Your task to perform on an android device: add a contact Image 0: 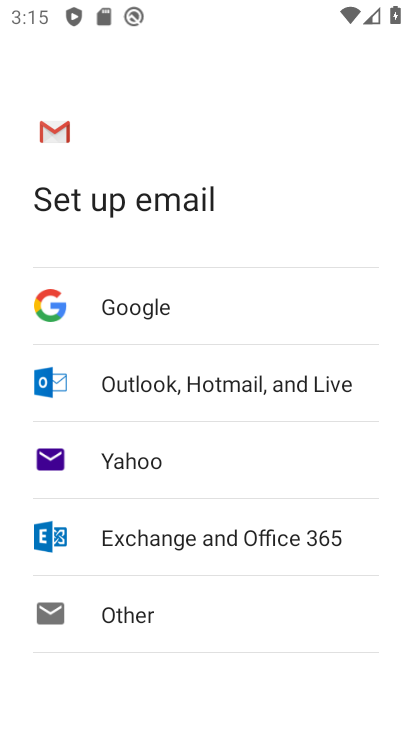
Step 0: press home button
Your task to perform on an android device: add a contact Image 1: 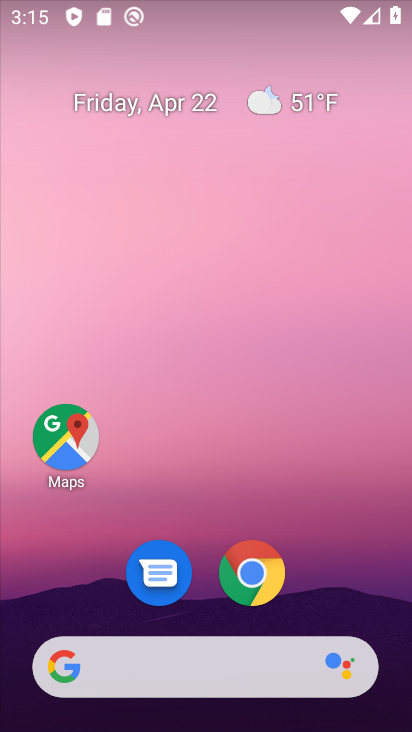
Step 1: drag from (329, 619) to (308, 172)
Your task to perform on an android device: add a contact Image 2: 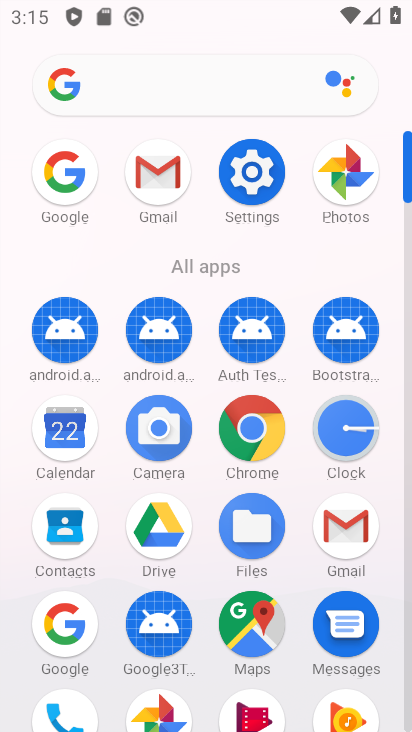
Step 2: click (257, 250)
Your task to perform on an android device: add a contact Image 3: 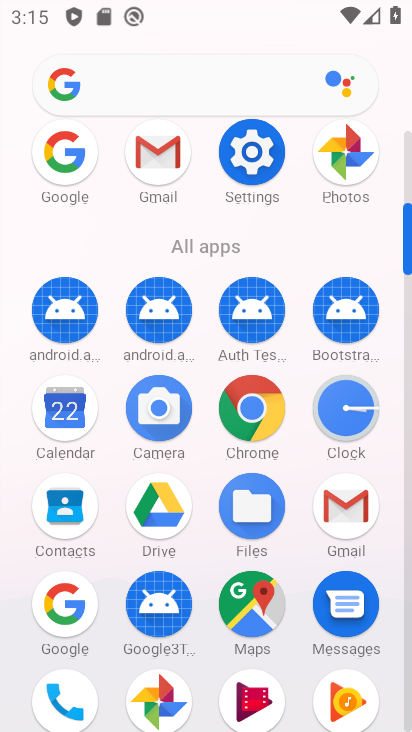
Step 3: click (65, 508)
Your task to perform on an android device: add a contact Image 4: 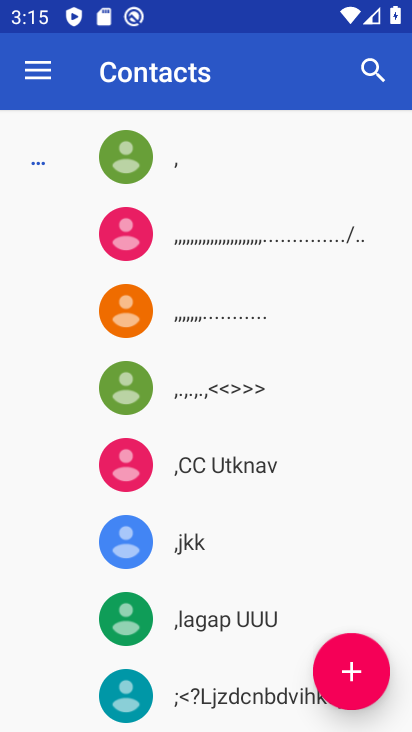
Step 4: click (346, 670)
Your task to perform on an android device: add a contact Image 5: 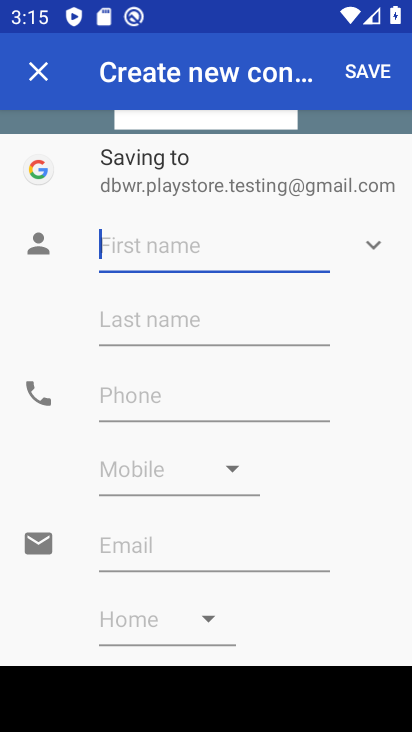
Step 5: type "rrtty"
Your task to perform on an android device: add a contact Image 6: 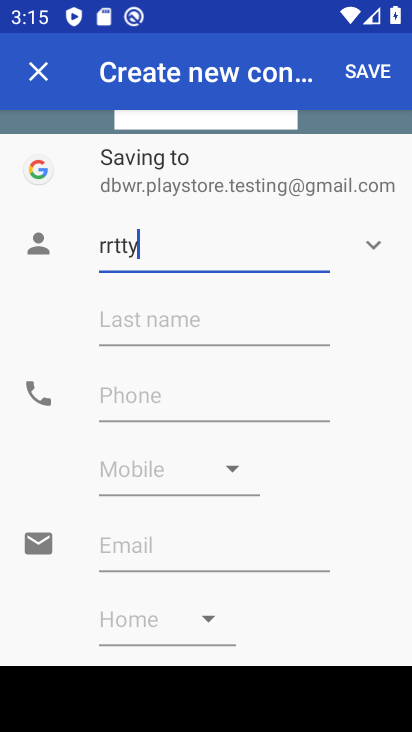
Step 6: click (139, 400)
Your task to perform on an android device: add a contact Image 7: 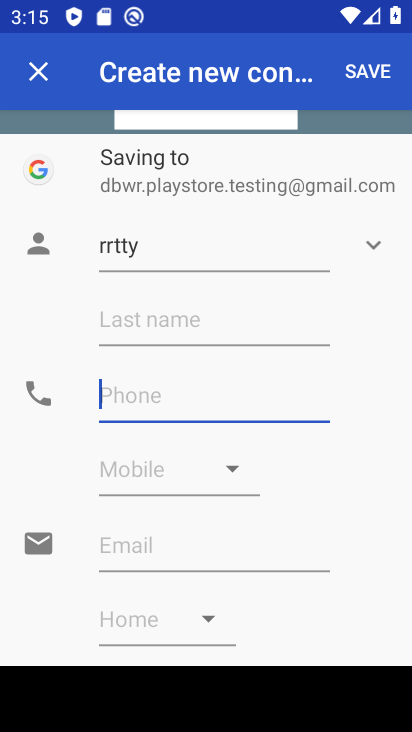
Step 7: type "0098700987"
Your task to perform on an android device: add a contact Image 8: 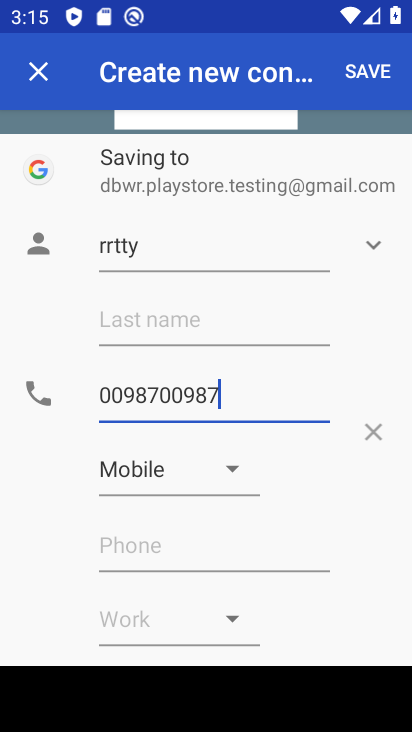
Step 8: click (376, 76)
Your task to perform on an android device: add a contact Image 9: 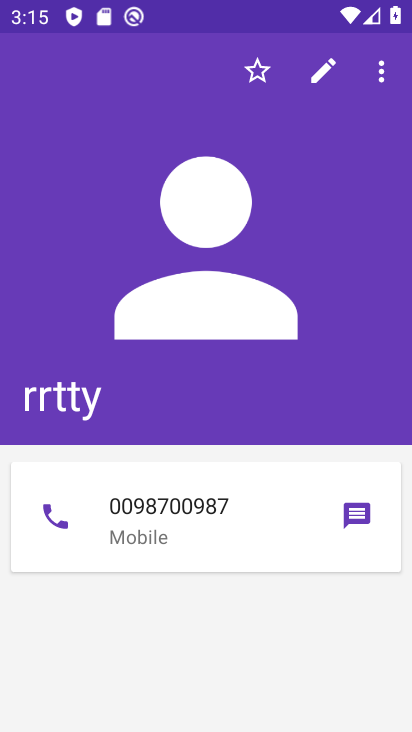
Step 9: task complete